Your task to perform on an android device: turn on showing notifications on the lock screen Image 0: 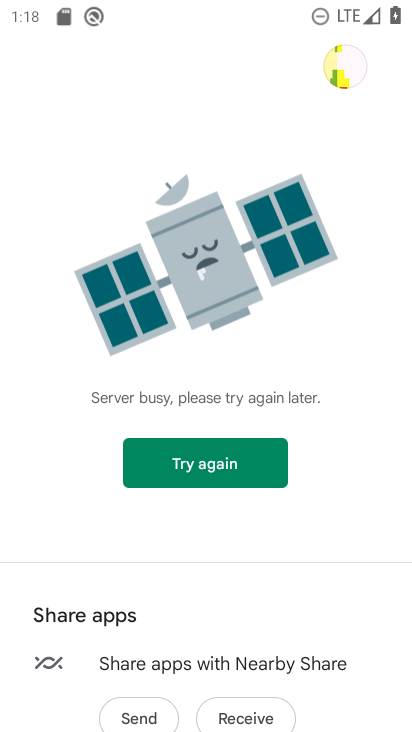
Step 0: press home button
Your task to perform on an android device: turn on showing notifications on the lock screen Image 1: 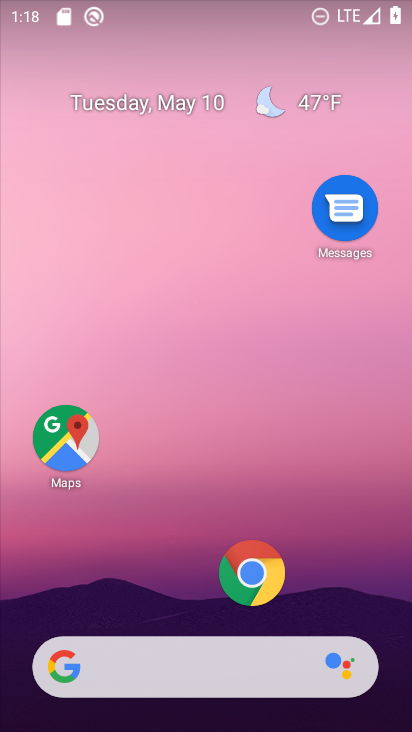
Step 1: drag from (186, 626) to (222, 70)
Your task to perform on an android device: turn on showing notifications on the lock screen Image 2: 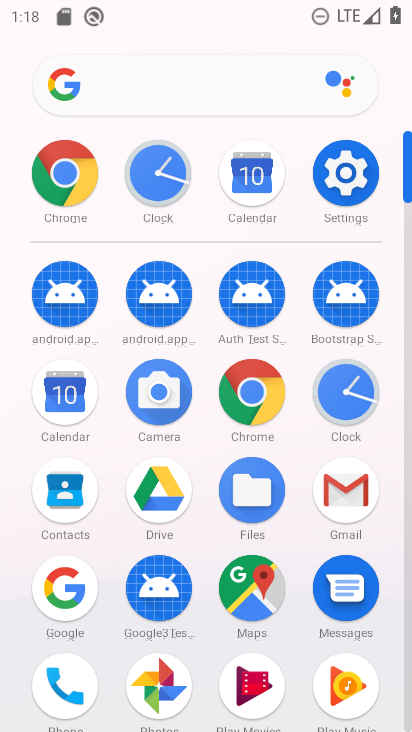
Step 2: click (337, 178)
Your task to perform on an android device: turn on showing notifications on the lock screen Image 3: 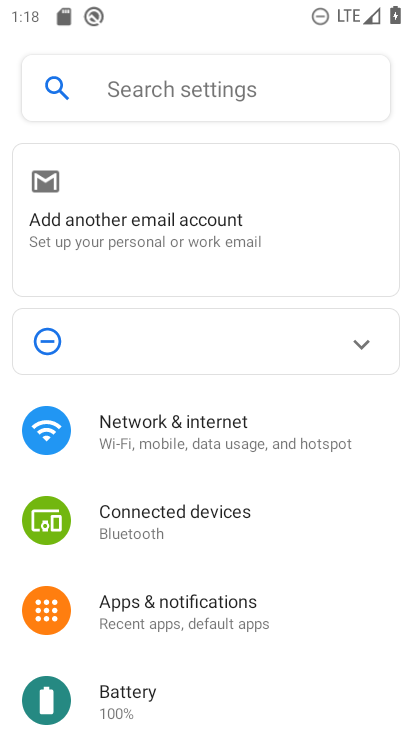
Step 3: drag from (202, 610) to (284, 76)
Your task to perform on an android device: turn on showing notifications on the lock screen Image 4: 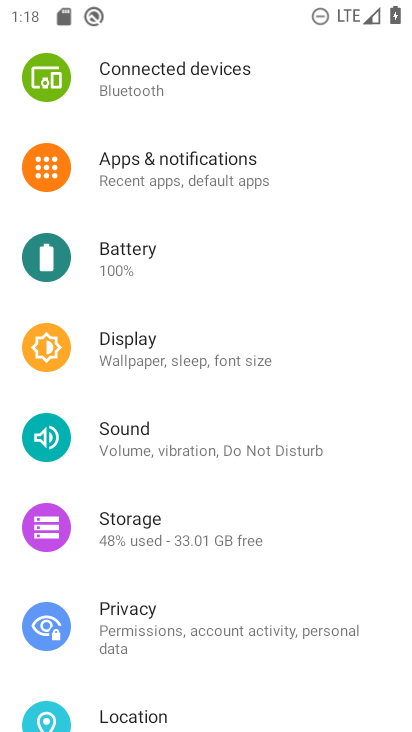
Step 4: drag from (163, 617) to (207, 127)
Your task to perform on an android device: turn on showing notifications on the lock screen Image 5: 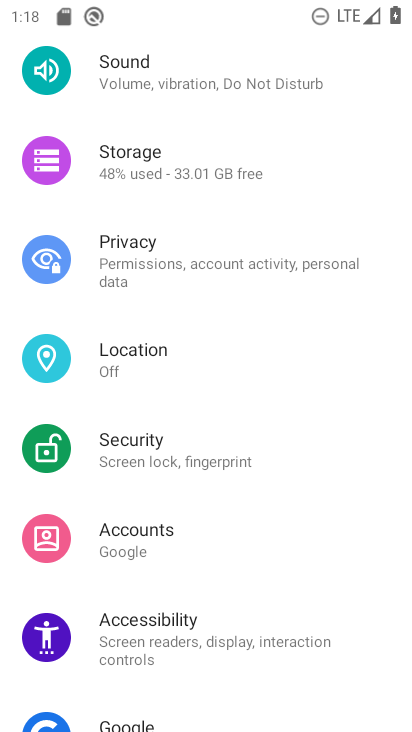
Step 5: drag from (168, 651) to (200, 194)
Your task to perform on an android device: turn on showing notifications on the lock screen Image 6: 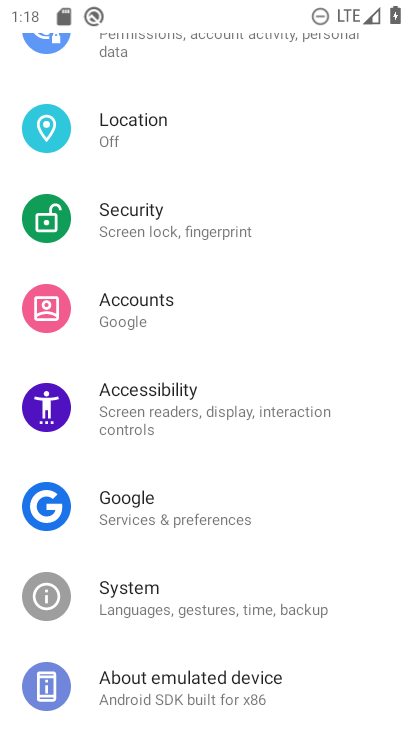
Step 6: click (175, 677)
Your task to perform on an android device: turn on showing notifications on the lock screen Image 7: 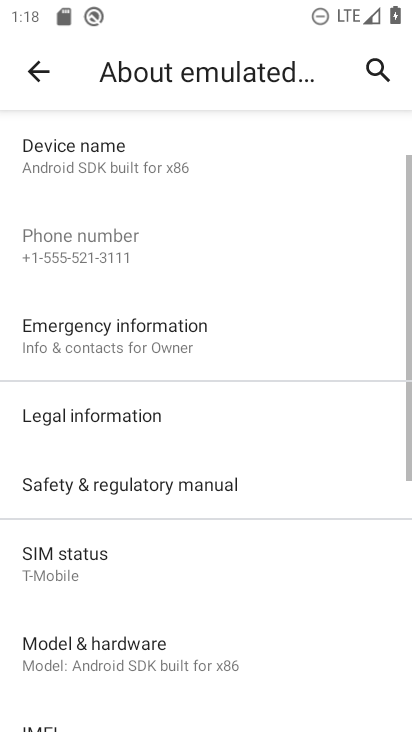
Step 7: click (35, 73)
Your task to perform on an android device: turn on showing notifications on the lock screen Image 8: 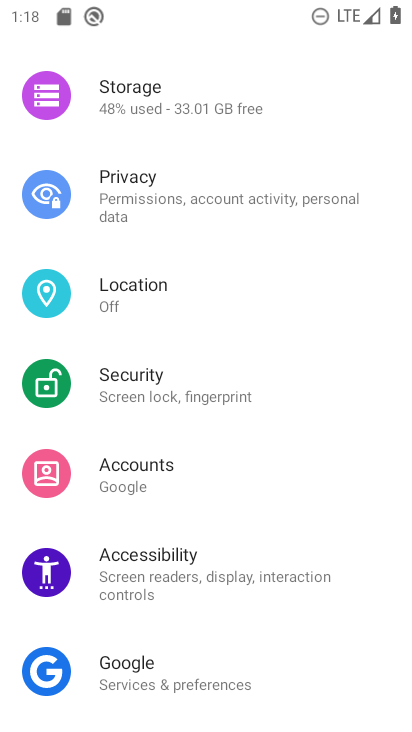
Step 8: drag from (224, 194) to (253, 725)
Your task to perform on an android device: turn on showing notifications on the lock screen Image 9: 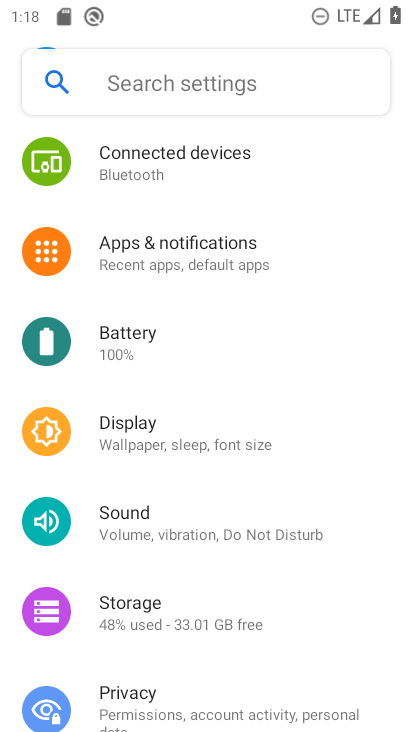
Step 9: click (192, 254)
Your task to perform on an android device: turn on showing notifications on the lock screen Image 10: 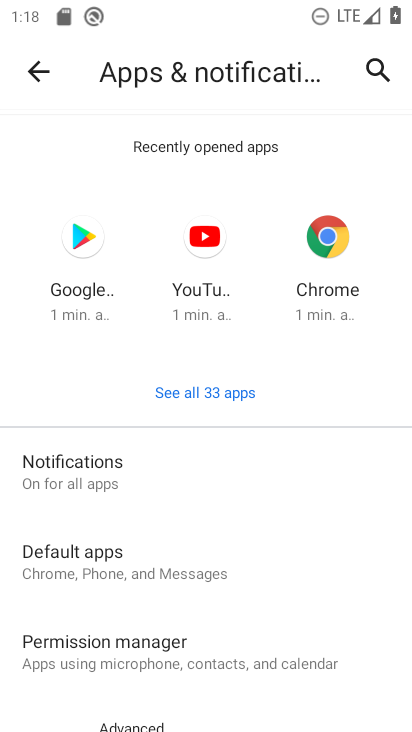
Step 10: click (123, 472)
Your task to perform on an android device: turn on showing notifications on the lock screen Image 11: 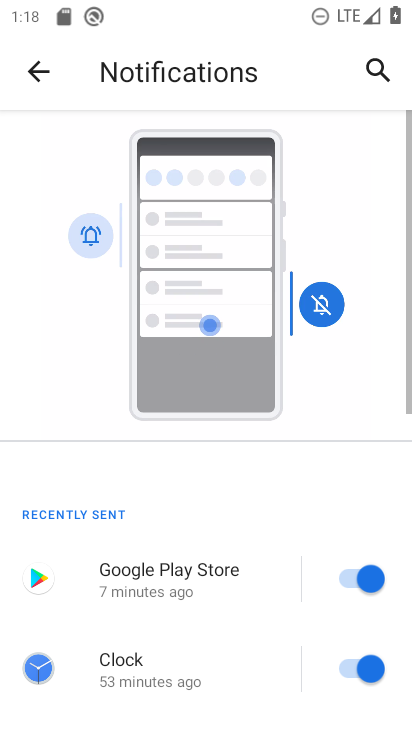
Step 11: drag from (169, 520) to (305, 58)
Your task to perform on an android device: turn on showing notifications on the lock screen Image 12: 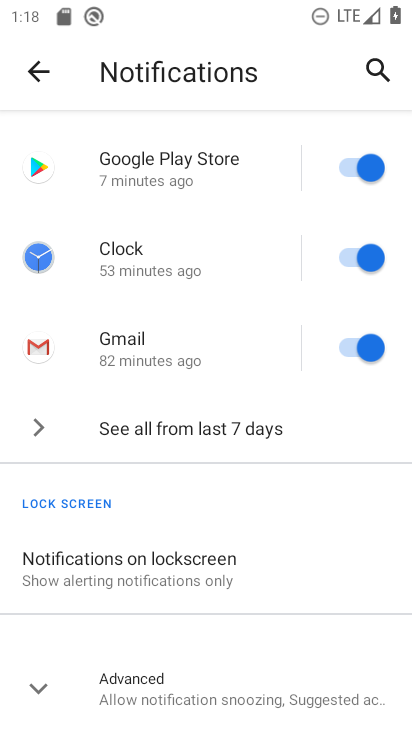
Step 12: click (189, 566)
Your task to perform on an android device: turn on showing notifications on the lock screen Image 13: 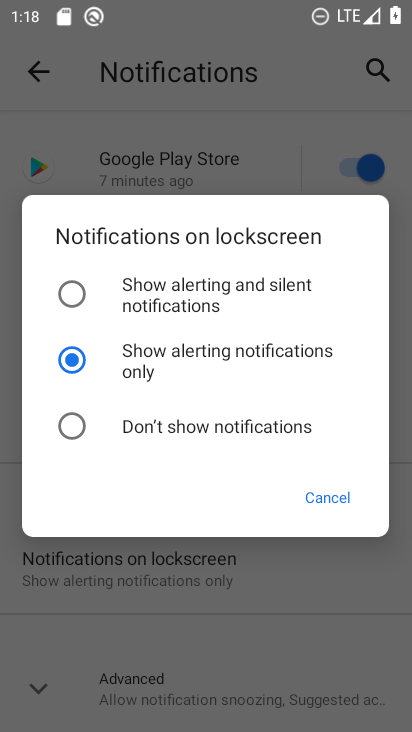
Step 13: task complete